Your task to perform on an android device: search for accent chairs on article.com Image 0: 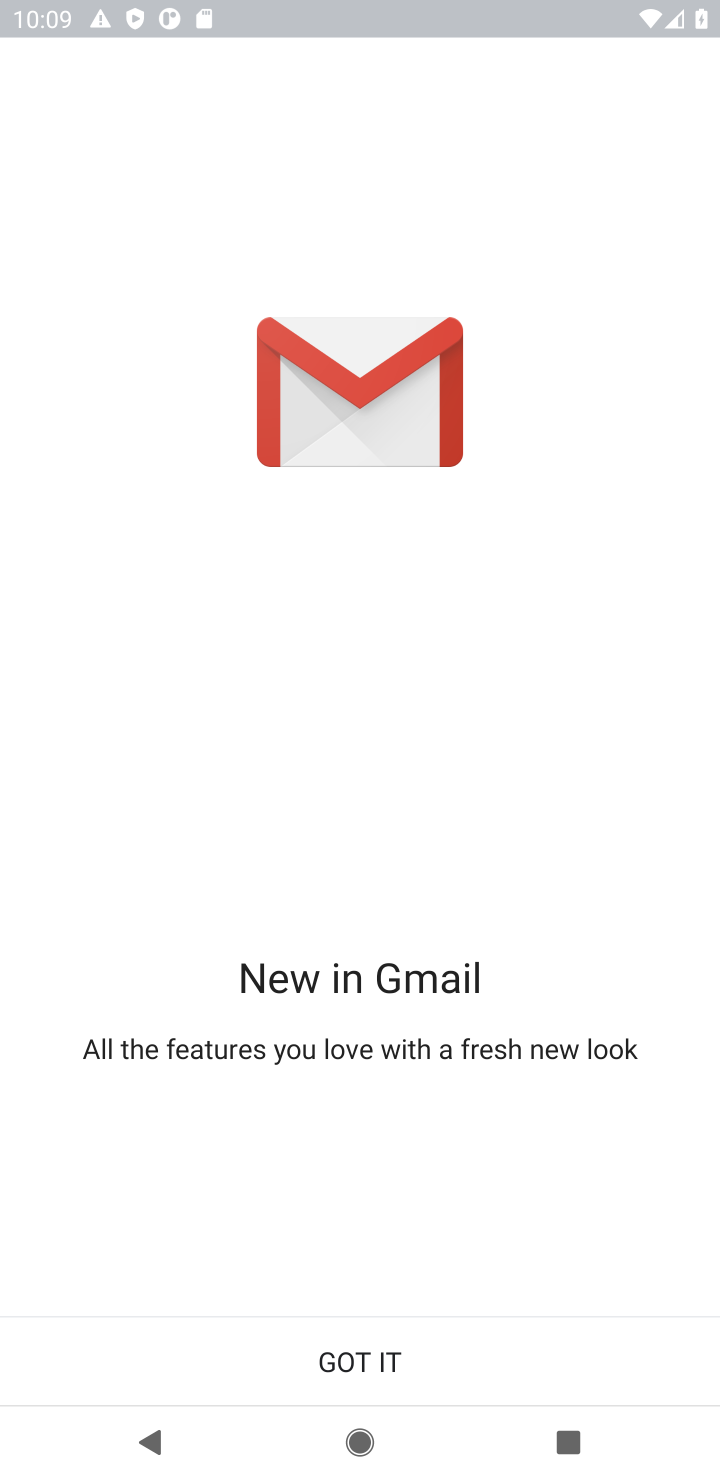
Step 0: press home button
Your task to perform on an android device: search for accent chairs on article.com Image 1: 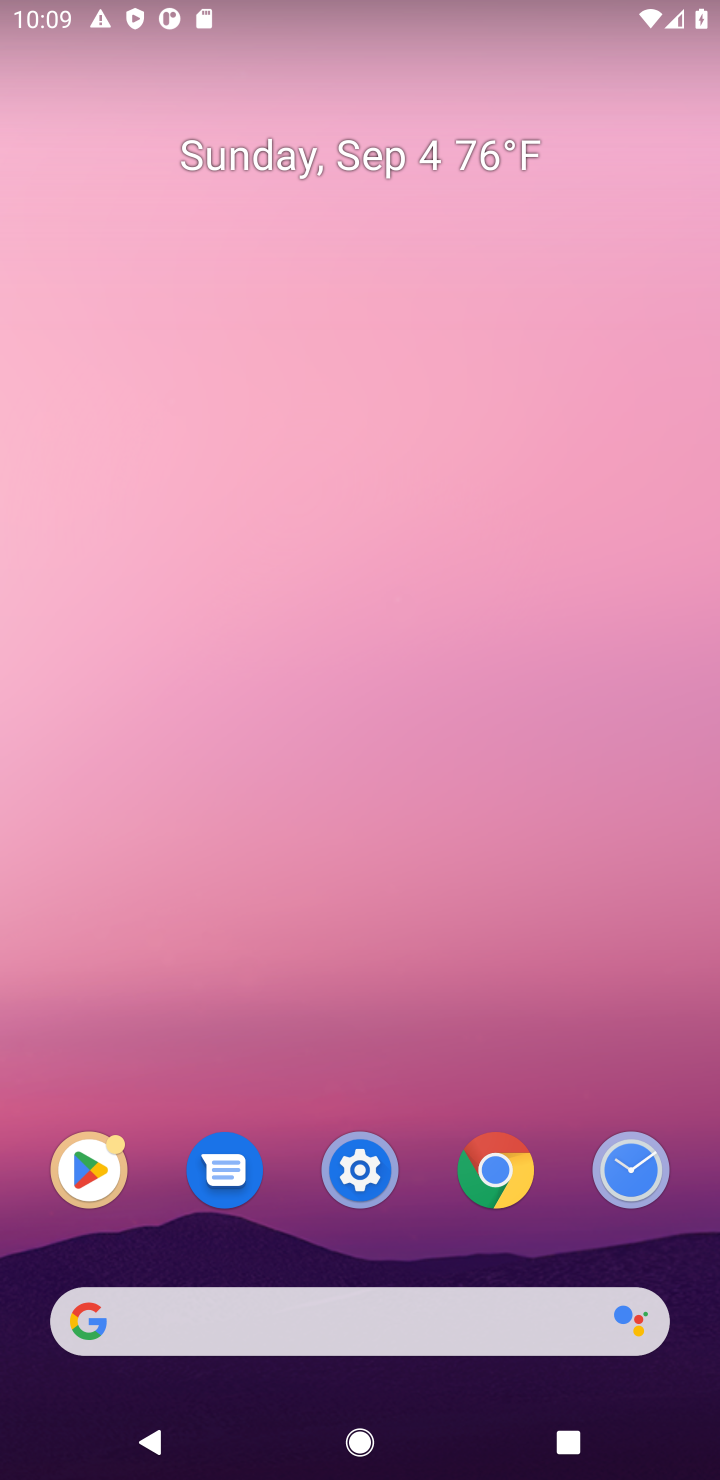
Step 1: click (270, 1294)
Your task to perform on an android device: search for accent chairs on article.com Image 2: 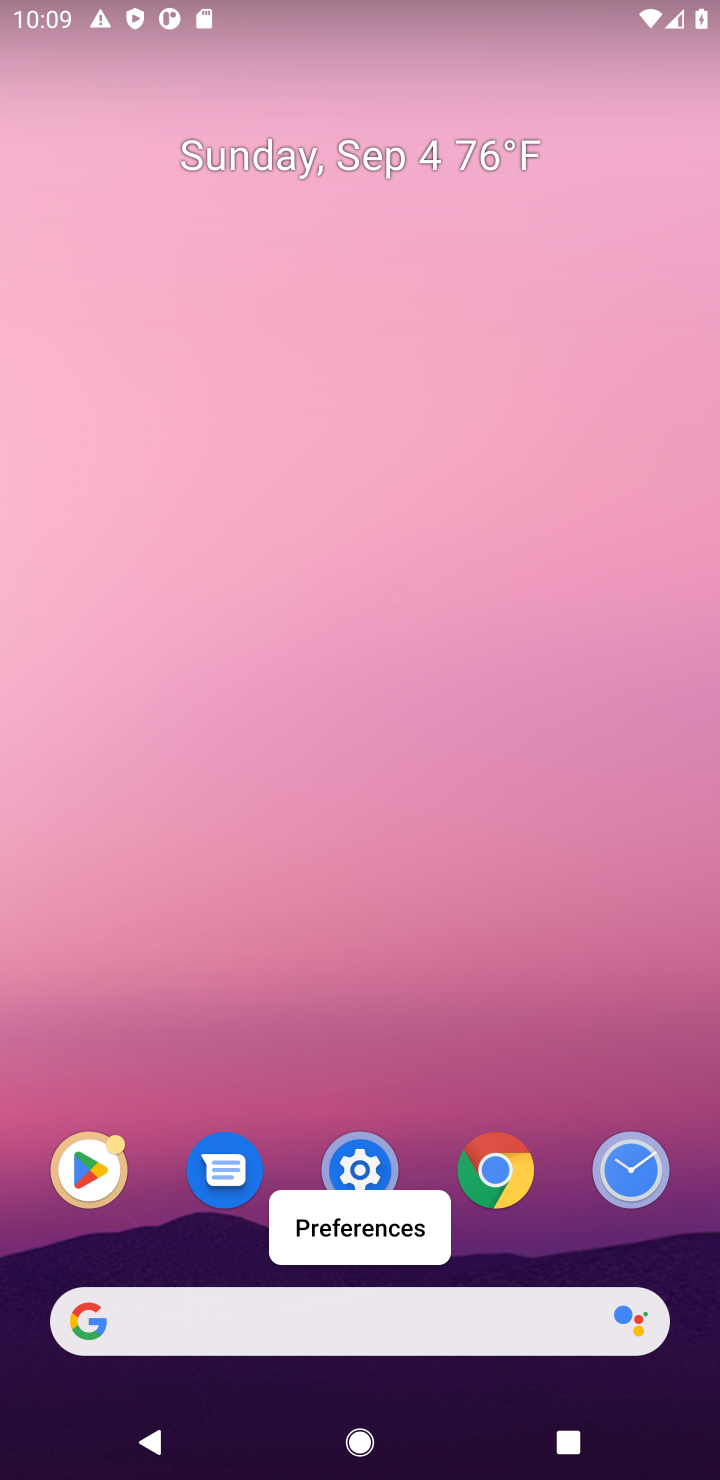
Step 2: click (262, 1332)
Your task to perform on an android device: search for accent chairs on article.com Image 3: 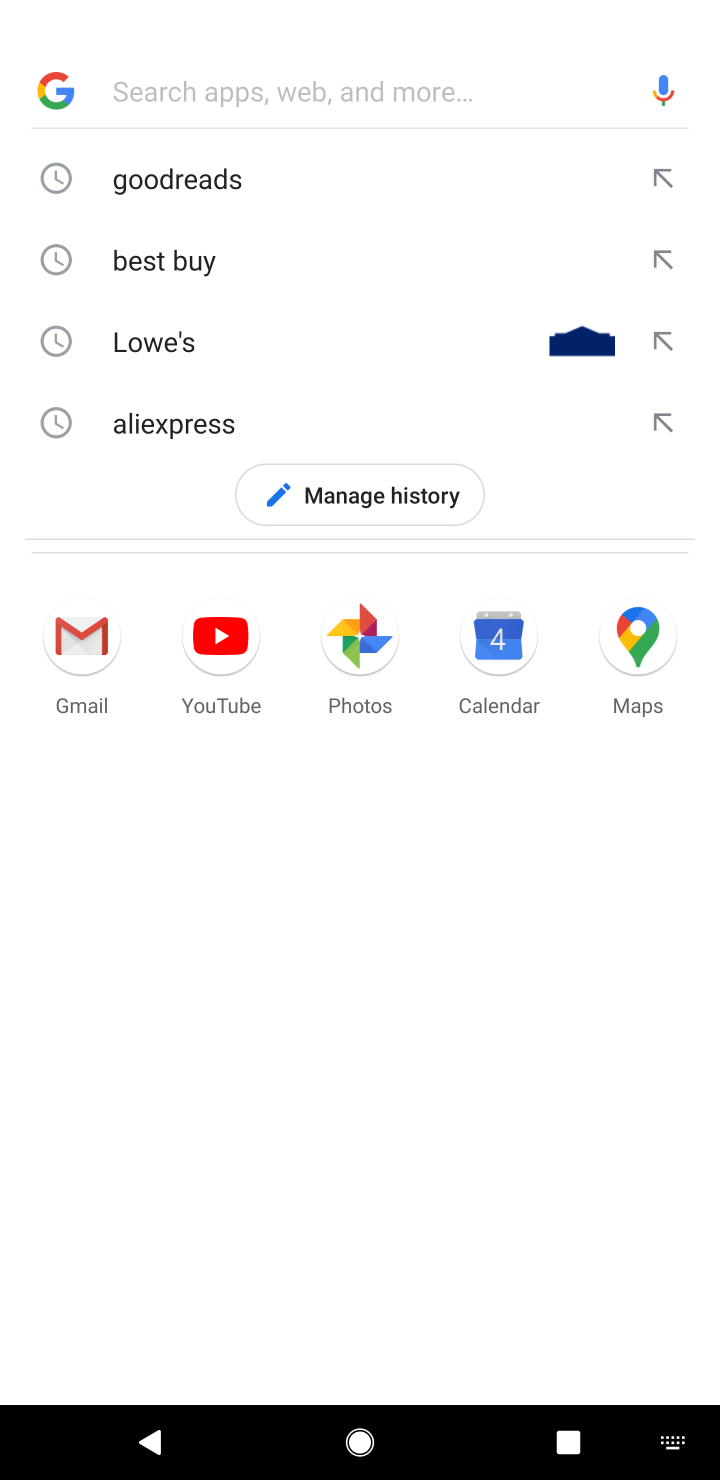
Step 3: click (293, 1332)
Your task to perform on an android device: search for accent chairs on article.com Image 4: 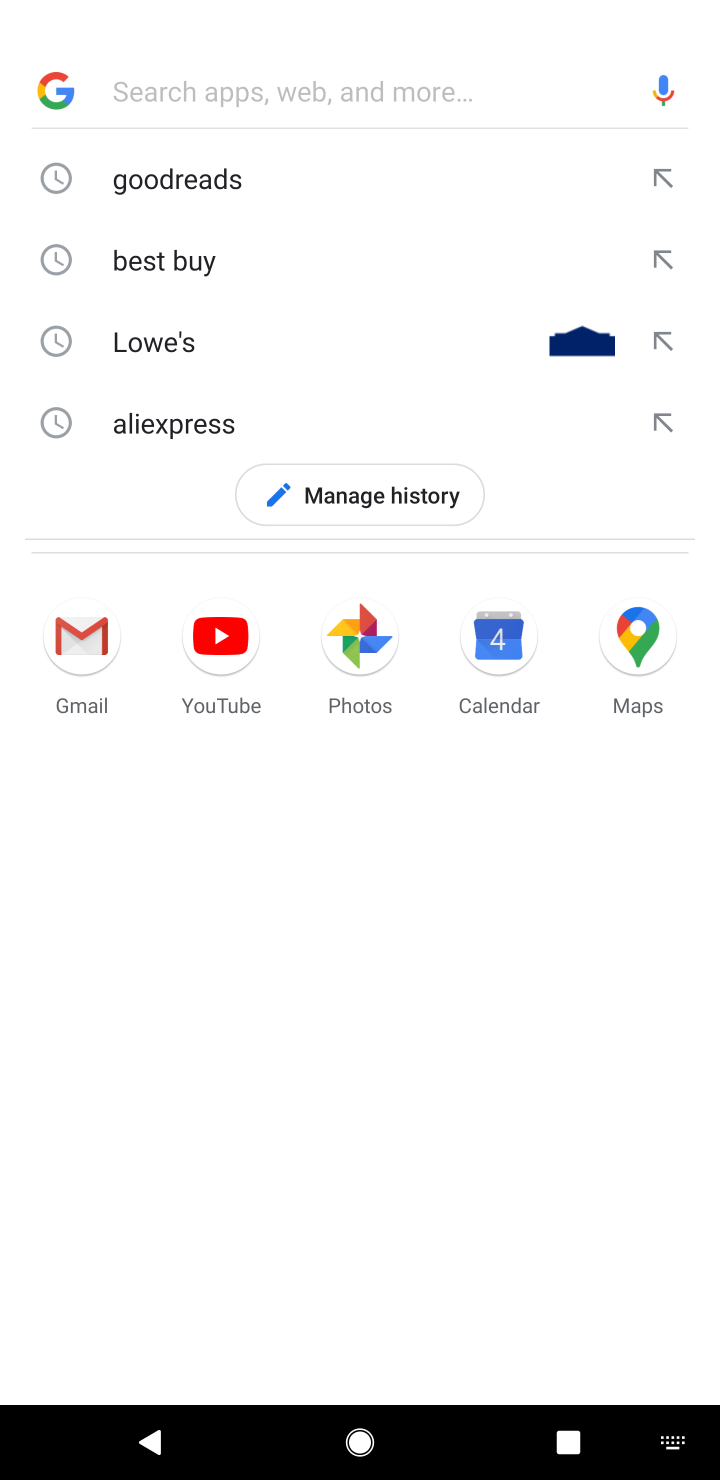
Step 4: type "article.com"
Your task to perform on an android device: search for accent chairs on article.com Image 5: 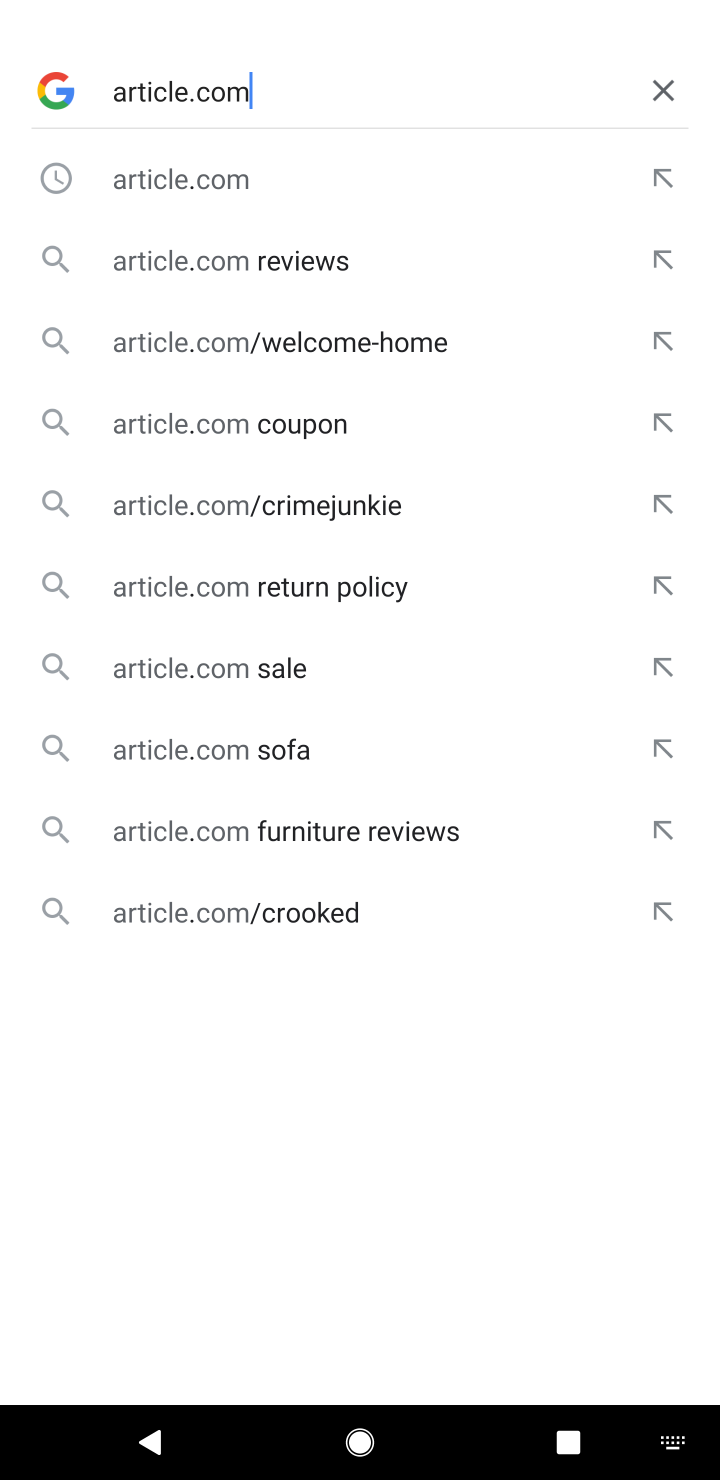
Step 5: click (166, 178)
Your task to perform on an android device: search for accent chairs on article.com Image 6: 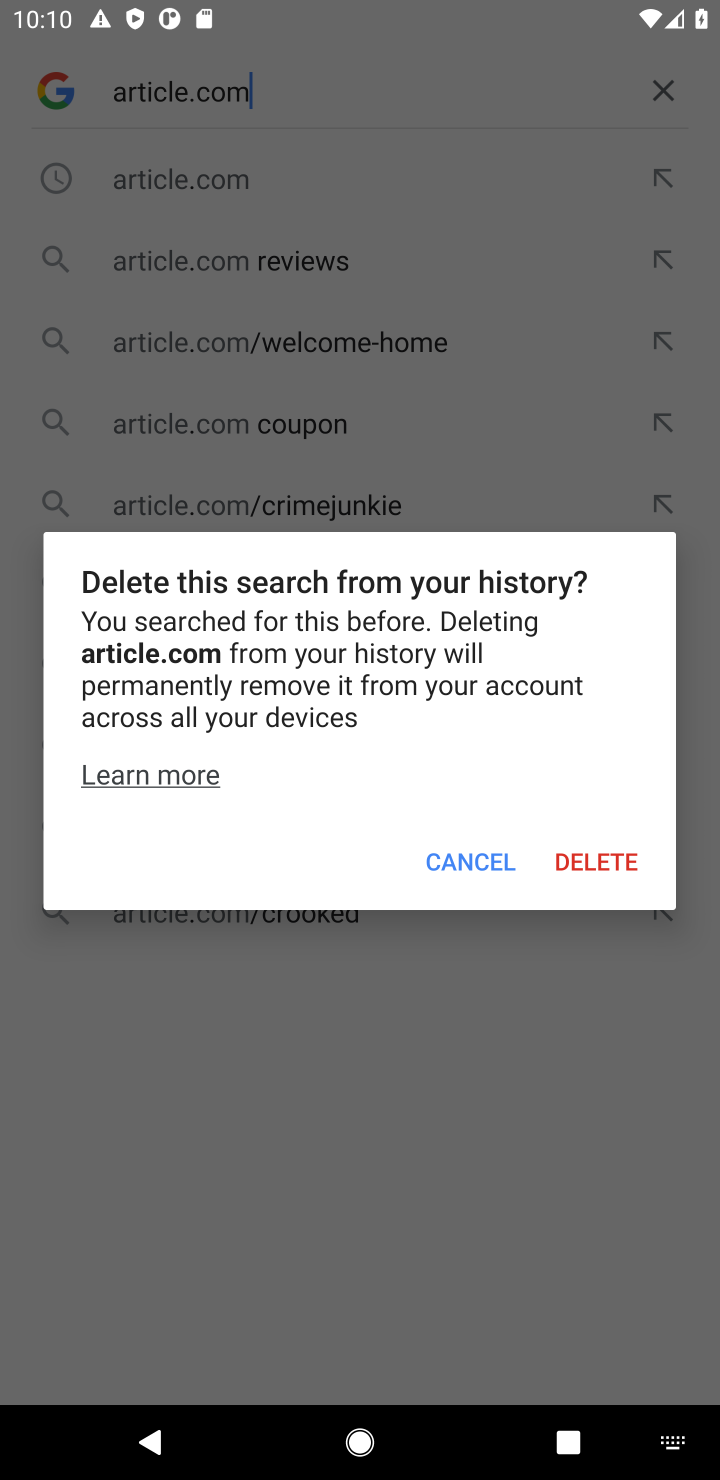
Step 6: click (495, 838)
Your task to perform on an android device: search for accent chairs on article.com Image 7: 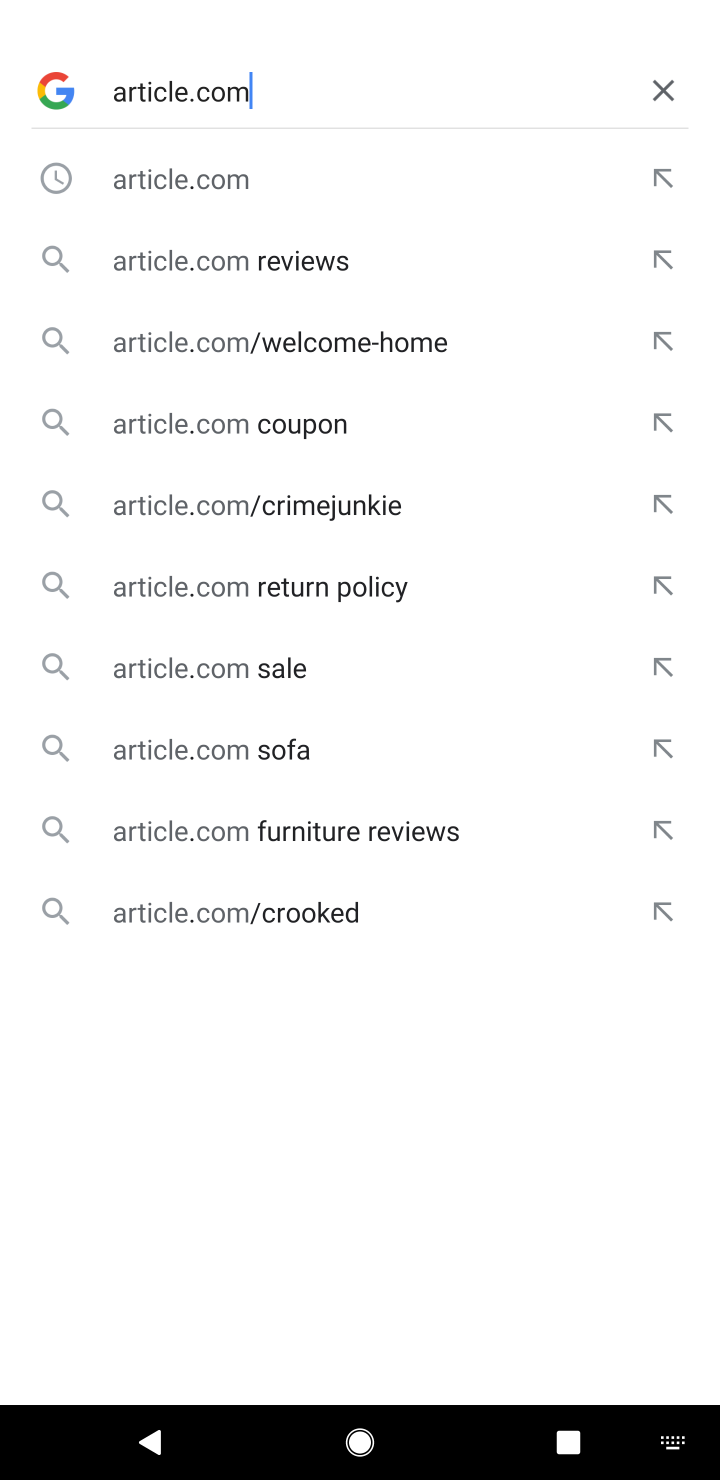
Step 7: click (186, 177)
Your task to perform on an android device: search for accent chairs on article.com Image 8: 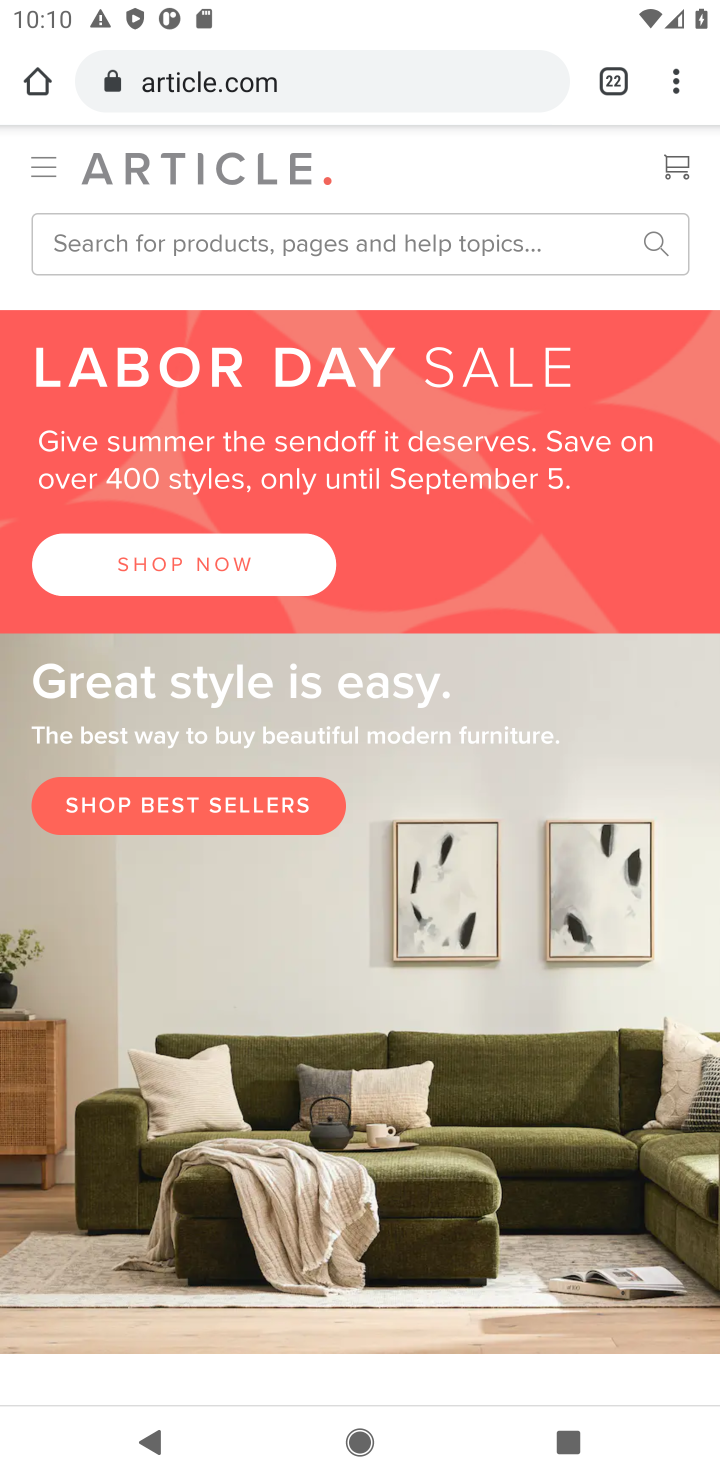
Step 8: click (205, 237)
Your task to perform on an android device: search for accent chairs on article.com Image 9: 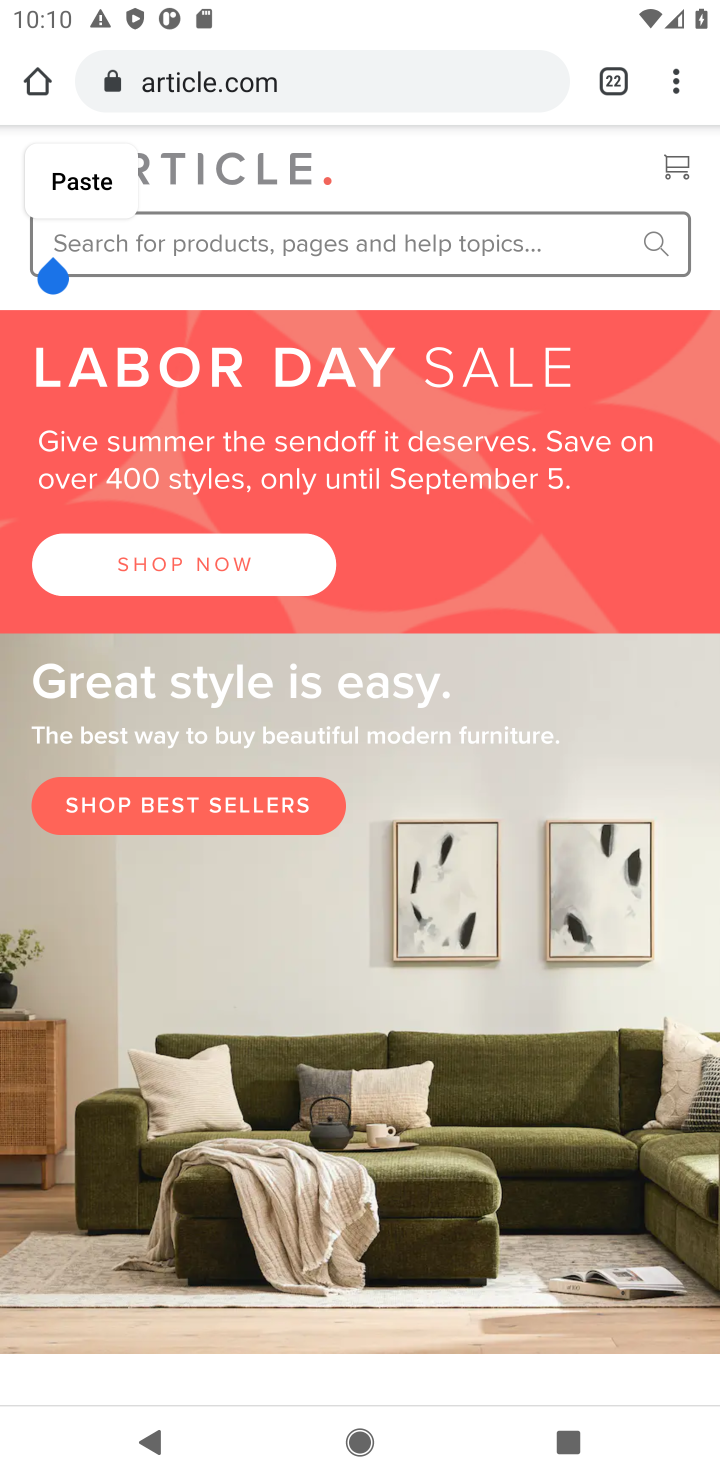
Step 9: type "accent chairs"
Your task to perform on an android device: search for accent chairs on article.com Image 10: 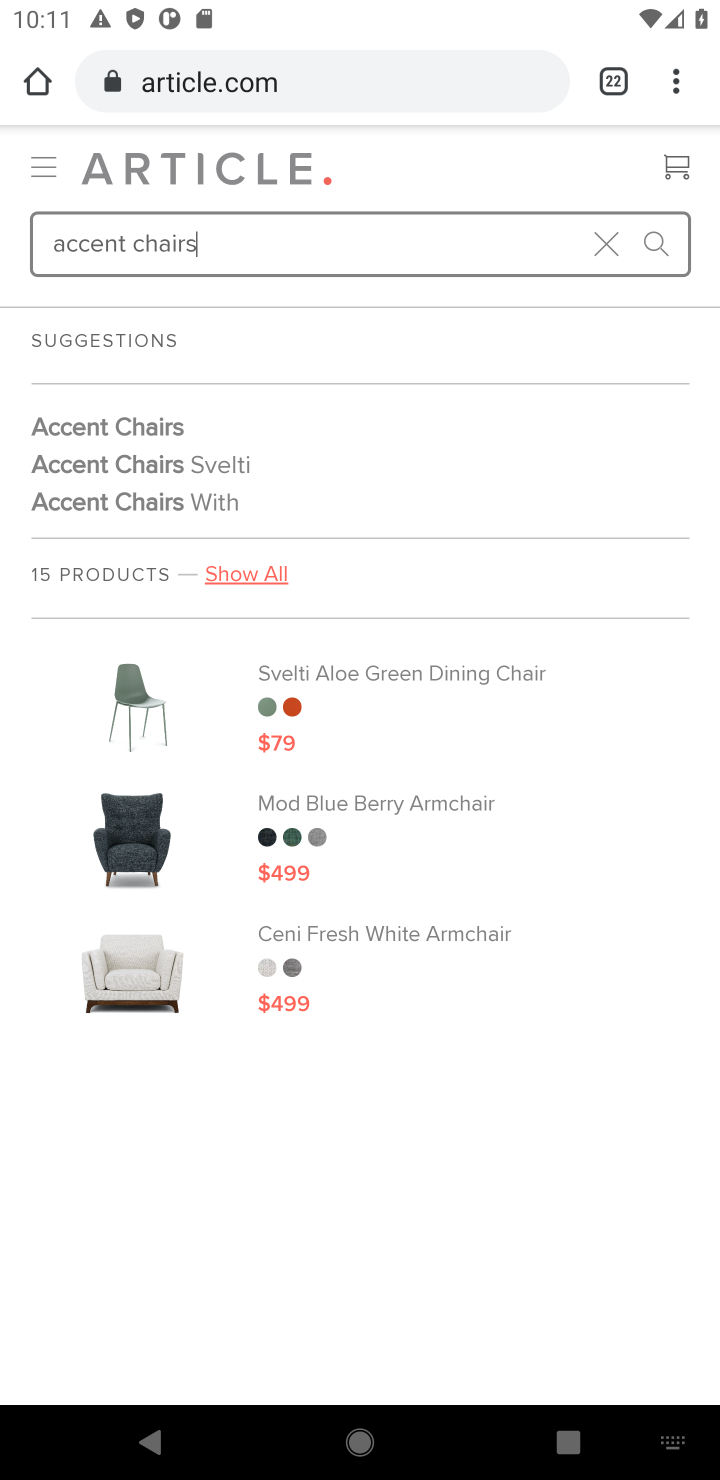
Step 10: click (671, 236)
Your task to perform on an android device: search for accent chairs on article.com Image 11: 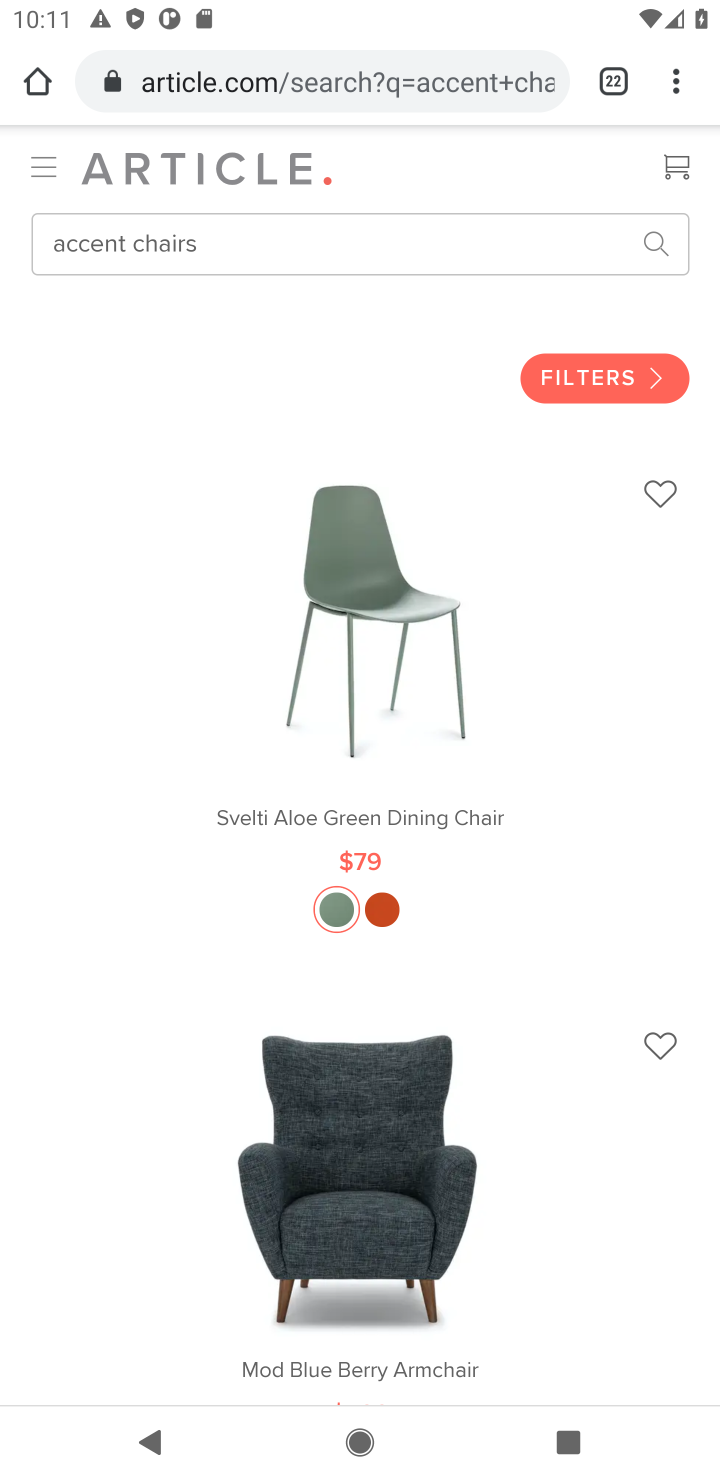
Step 11: task complete